Your task to perform on an android device: What's the weather going to be tomorrow? Image 0: 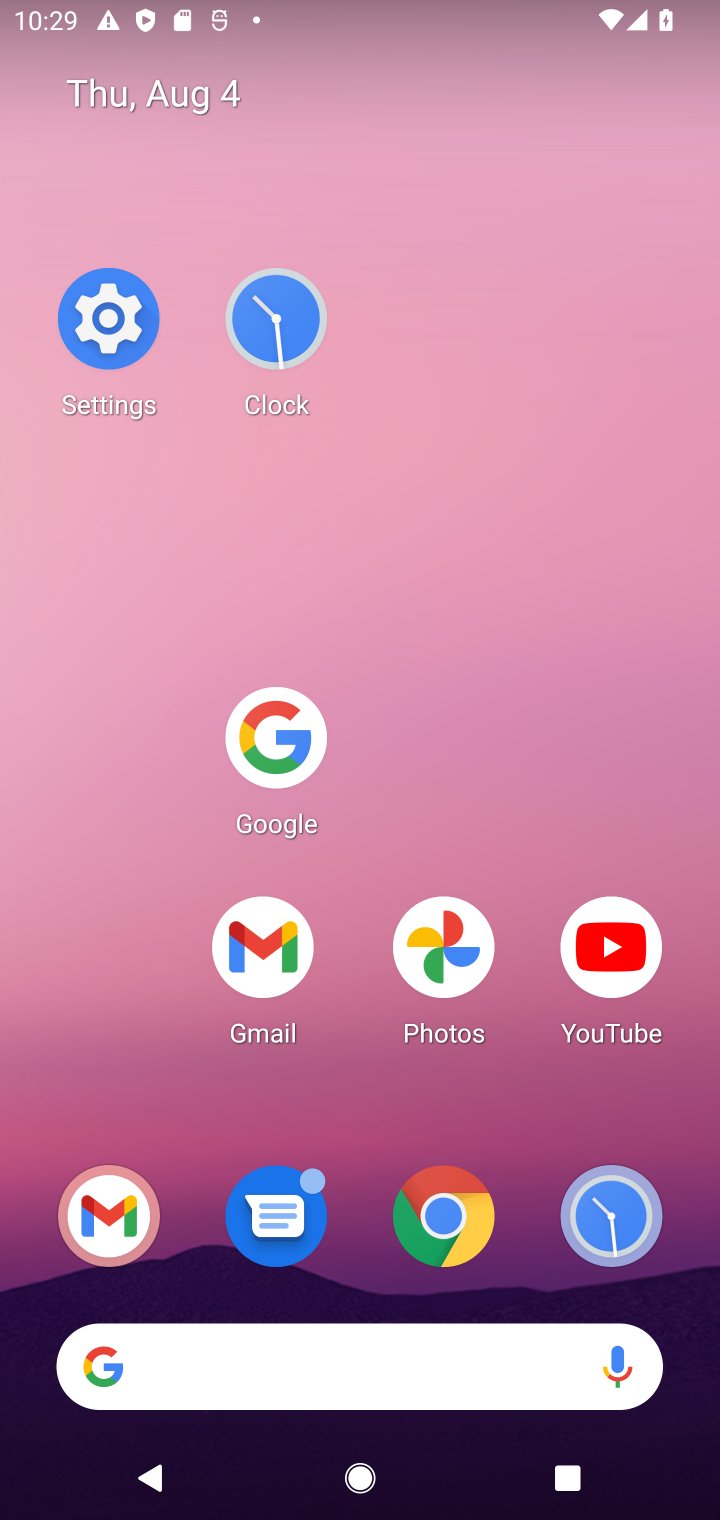
Step 0: click (315, 732)
Your task to perform on an android device: What's the weather going to be tomorrow? Image 1: 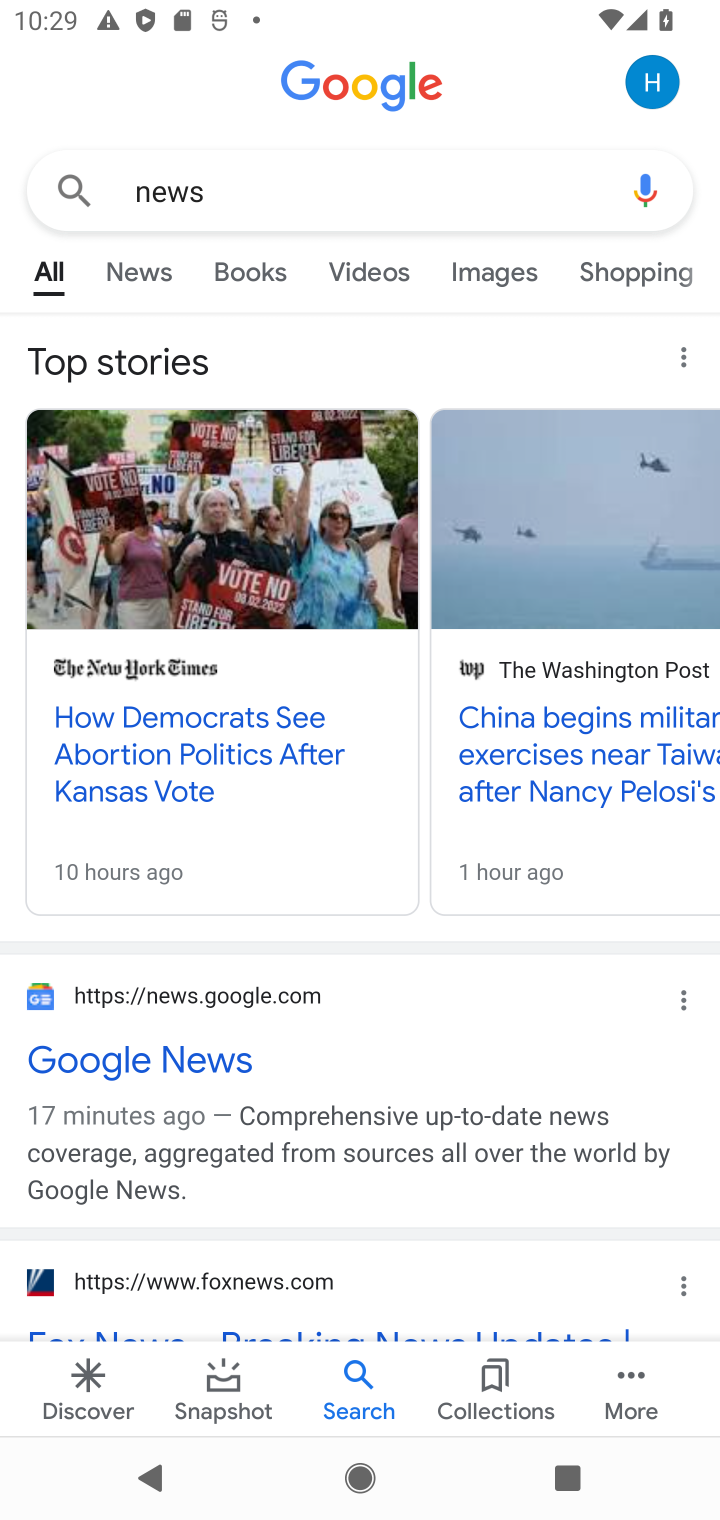
Step 1: click (367, 199)
Your task to perform on an android device: What's the weather going to be tomorrow? Image 2: 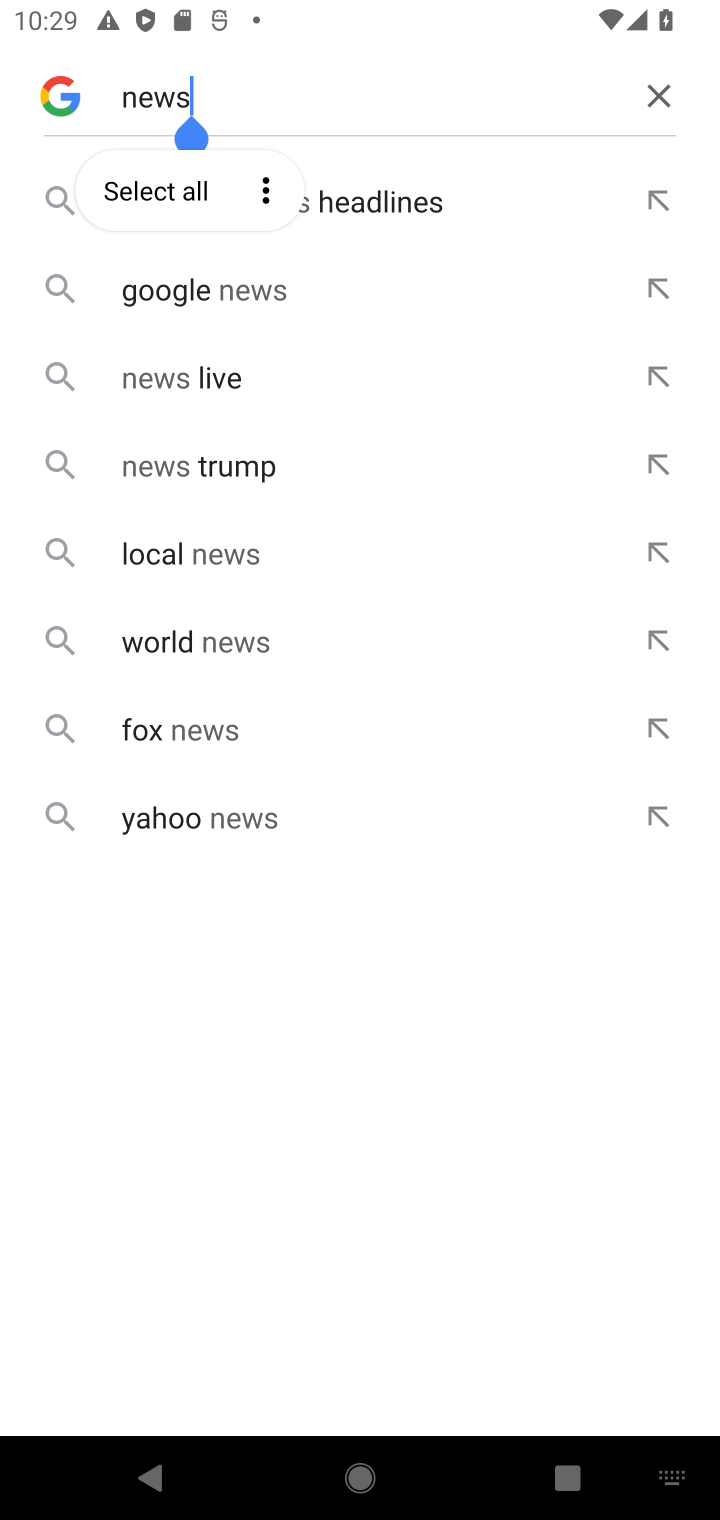
Step 2: click (664, 91)
Your task to perform on an android device: What's the weather going to be tomorrow? Image 3: 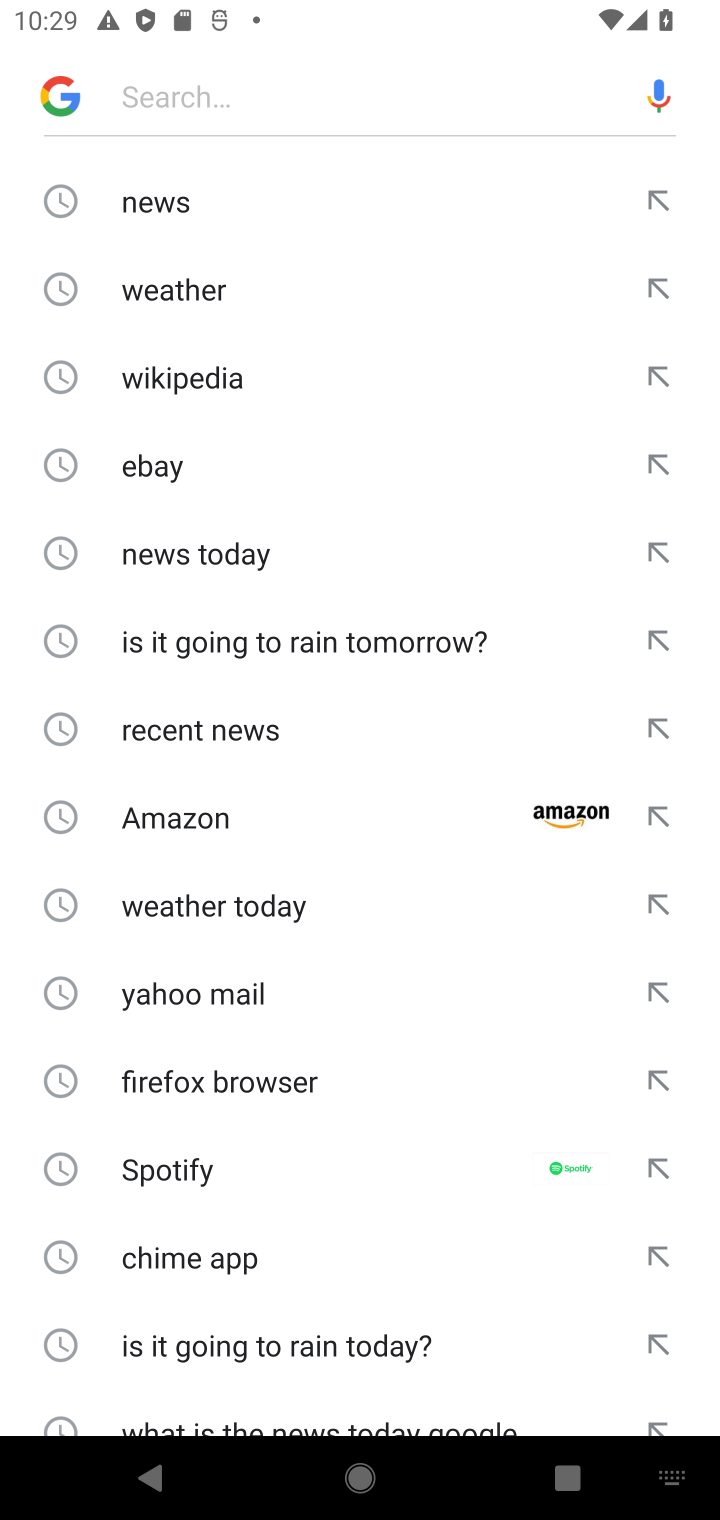
Step 3: click (283, 308)
Your task to perform on an android device: What's the weather going to be tomorrow? Image 4: 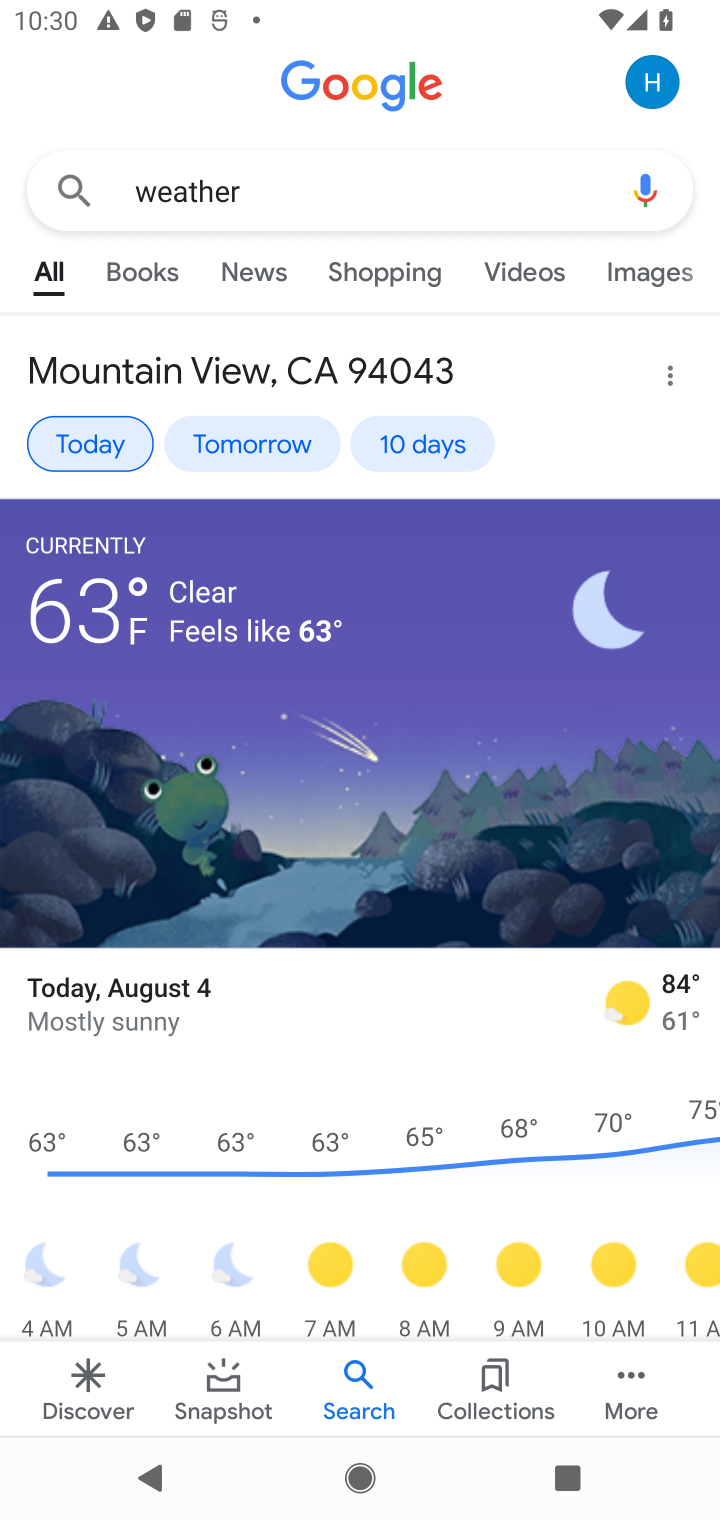
Step 4: task complete